Your task to perform on an android device: Is it going to rain today? Image 0: 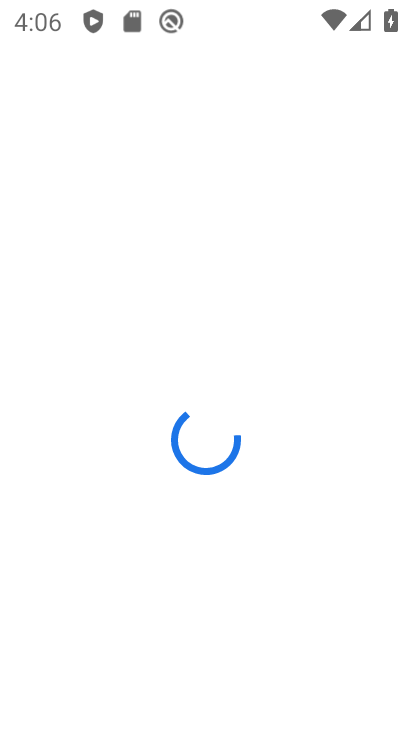
Step 0: press back button
Your task to perform on an android device: Is it going to rain today? Image 1: 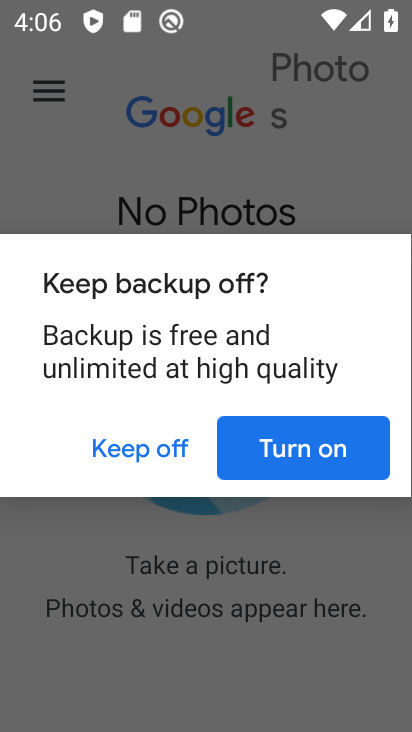
Step 1: press back button
Your task to perform on an android device: Is it going to rain today? Image 2: 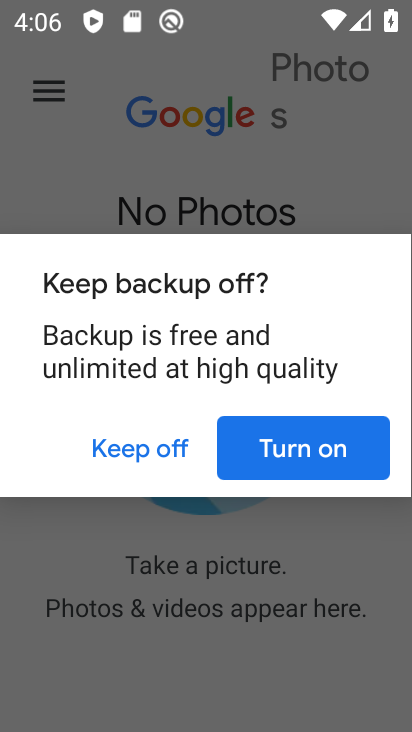
Step 2: press home button
Your task to perform on an android device: Is it going to rain today? Image 3: 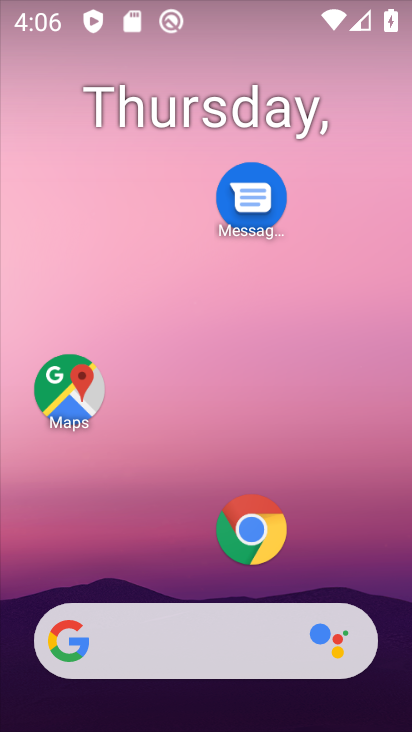
Step 3: click (159, 633)
Your task to perform on an android device: Is it going to rain today? Image 4: 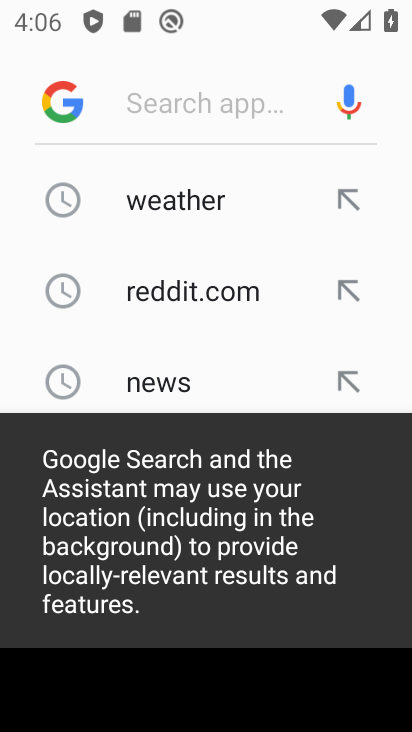
Step 4: click (174, 204)
Your task to perform on an android device: Is it going to rain today? Image 5: 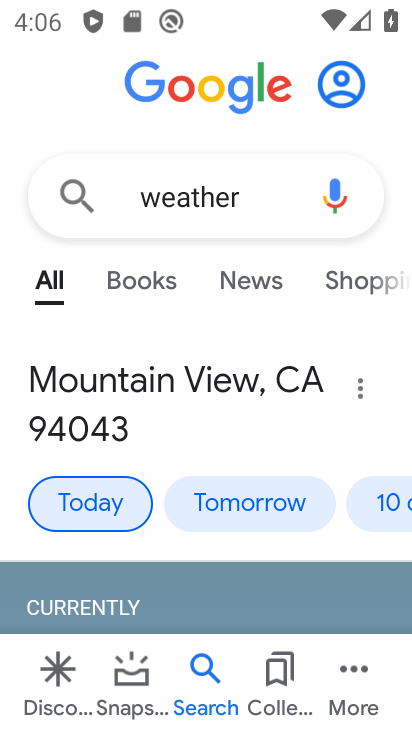
Step 5: task complete